Your task to perform on an android device: turn off sleep mode Image 0: 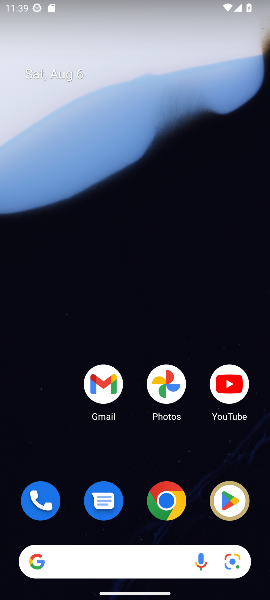
Step 0: drag from (85, 264) to (82, 142)
Your task to perform on an android device: turn off sleep mode Image 1: 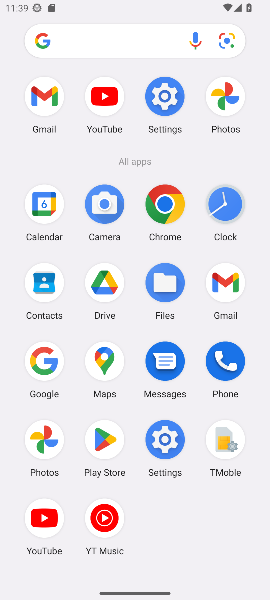
Step 1: task complete